Your task to perform on an android device: turn off sleep mode Image 0: 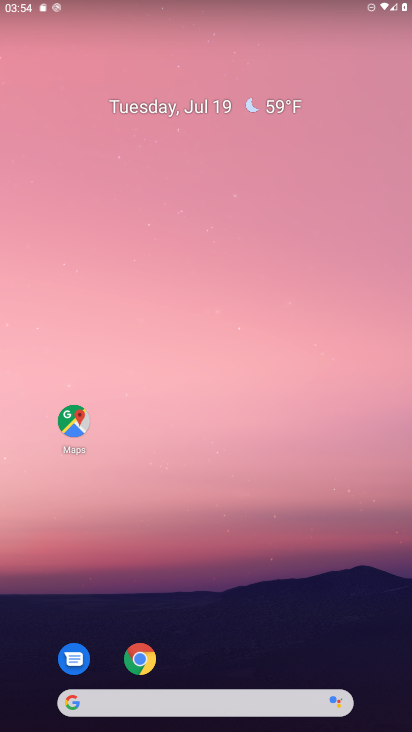
Step 0: drag from (230, 694) to (170, 145)
Your task to perform on an android device: turn off sleep mode Image 1: 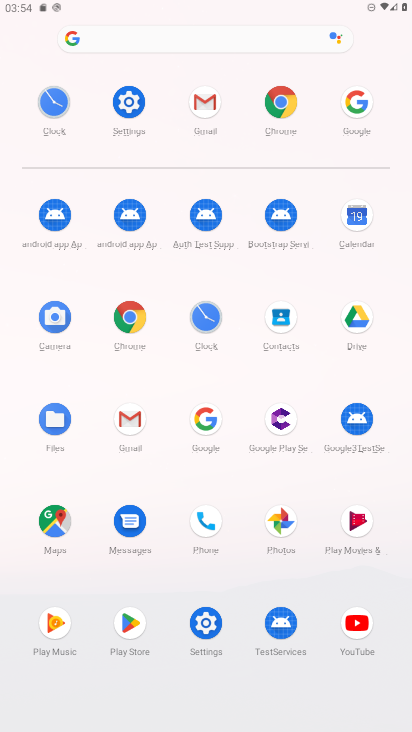
Step 1: click (129, 102)
Your task to perform on an android device: turn off sleep mode Image 2: 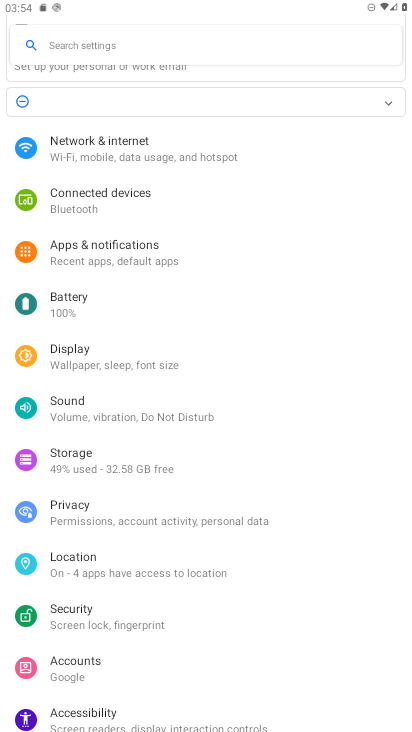
Step 2: click (89, 356)
Your task to perform on an android device: turn off sleep mode Image 3: 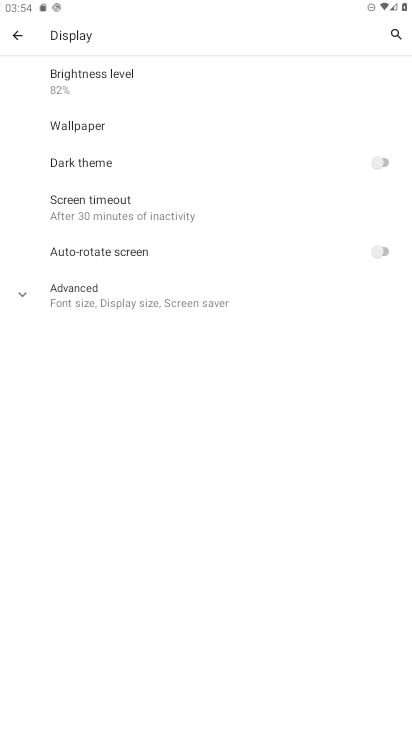
Step 3: click (124, 214)
Your task to perform on an android device: turn off sleep mode Image 4: 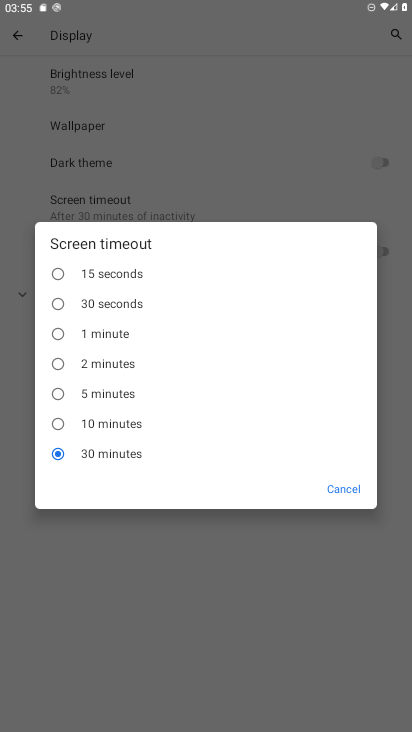
Step 4: click (351, 487)
Your task to perform on an android device: turn off sleep mode Image 5: 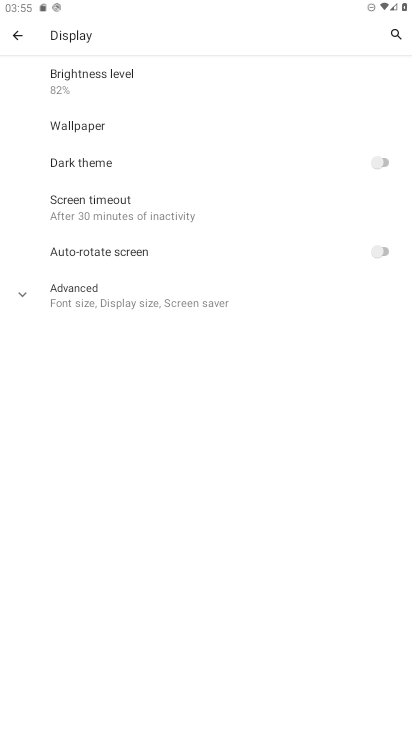
Step 5: task complete